Your task to perform on an android device: turn on the 24-hour format for clock Image 0: 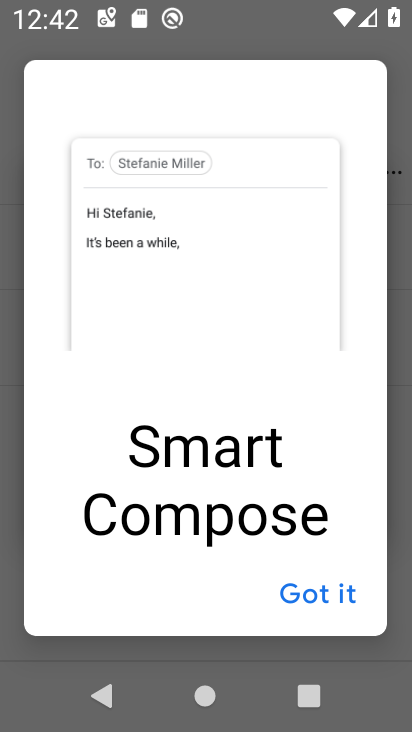
Step 0: press home button
Your task to perform on an android device: turn on the 24-hour format for clock Image 1: 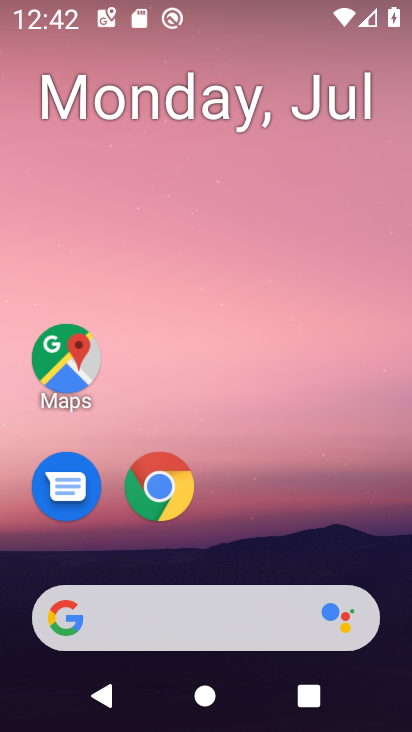
Step 1: drag from (384, 548) to (341, 76)
Your task to perform on an android device: turn on the 24-hour format for clock Image 2: 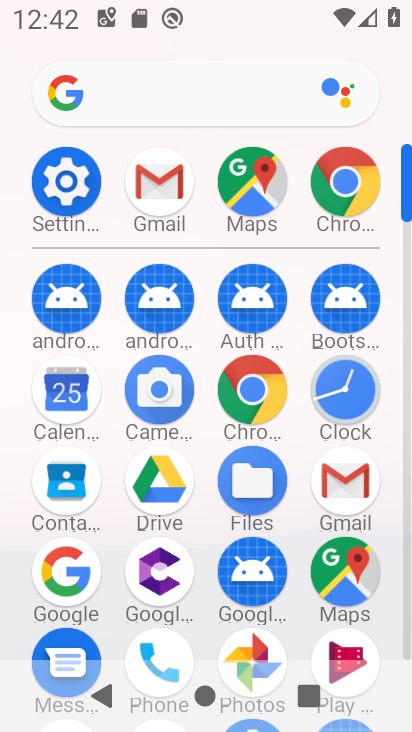
Step 2: click (338, 379)
Your task to perform on an android device: turn on the 24-hour format for clock Image 3: 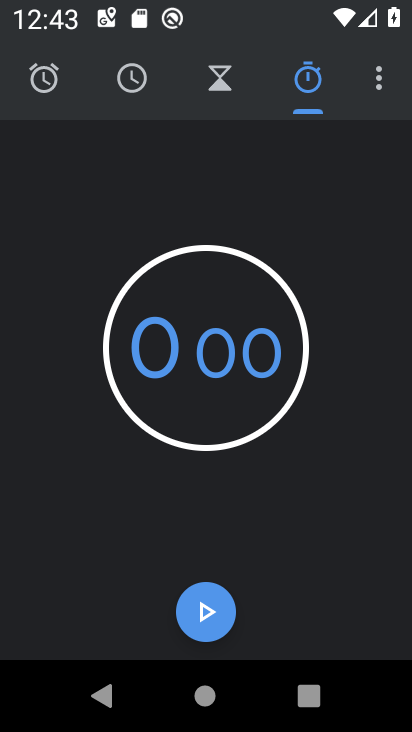
Step 3: click (379, 95)
Your task to perform on an android device: turn on the 24-hour format for clock Image 4: 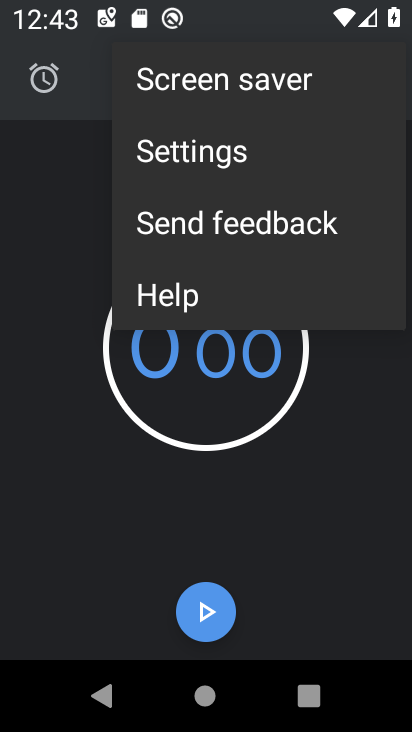
Step 4: click (314, 160)
Your task to perform on an android device: turn on the 24-hour format for clock Image 5: 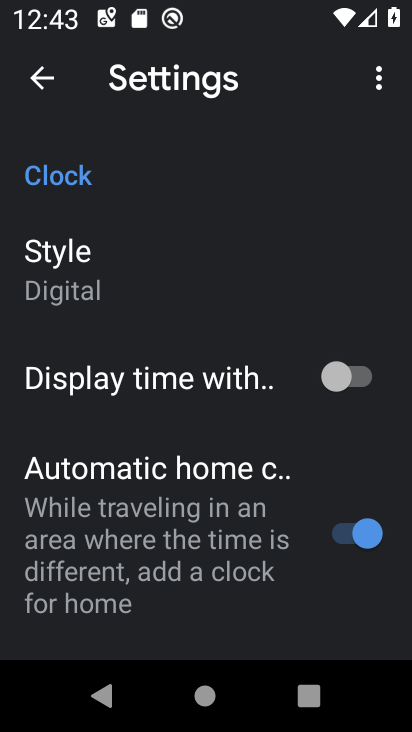
Step 5: drag from (303, 431) to (301, 366)
Your task to perform on an android device: turn on the 24-hour format for clock Image 6: 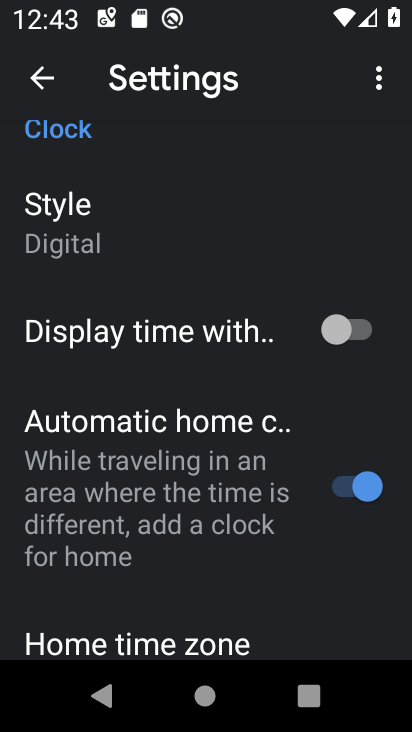
Step 6: drag from (293, 432) to (284, 321)
Your task to perform on an android device: turn on the 24-hour format for clock Image 7: 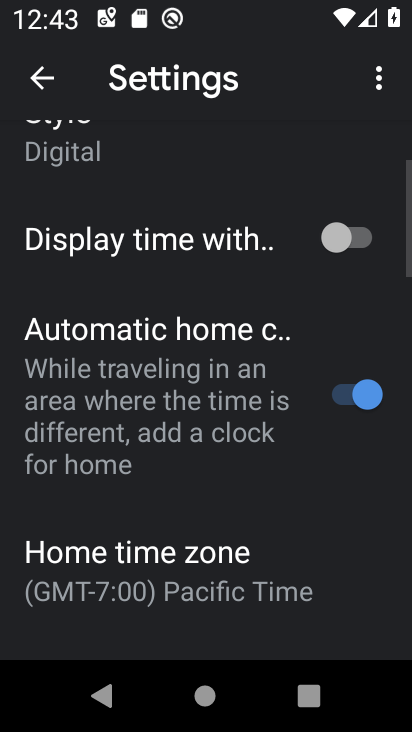
Step 7: drag from (282, 453) to (284, 361)
Your task to perform on an android device: turn on the 24-hour format for clock Image 8: 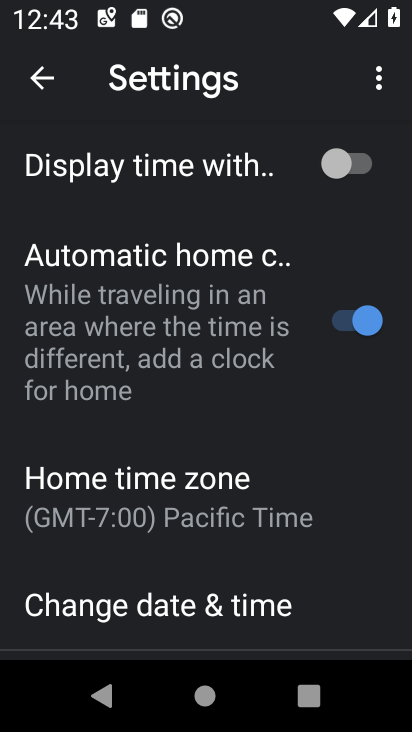
Step 8: drag from (281, 465) to (282, 369)
Your task to perform on an android device: turn on the 24-hour format for clock Image 9: 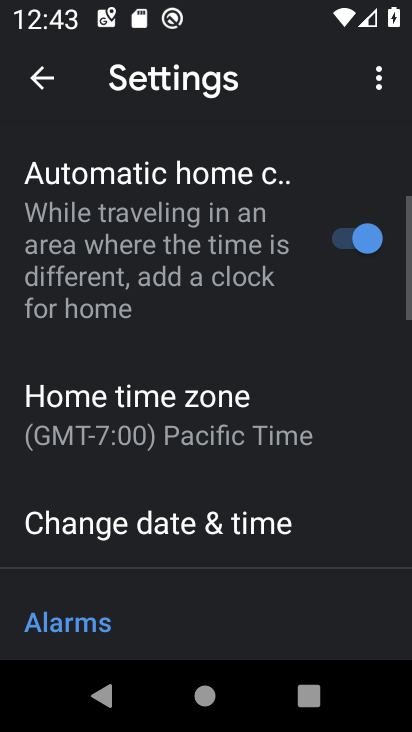
Step 9: drag from (279, 465) to (281, 345)
Your task to perform on an android device: turn on the 24-hour format for clock Image 10: 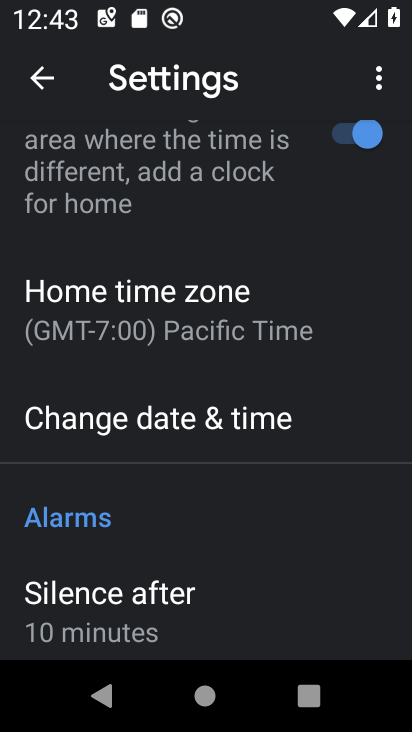
Step 10: drag from (280, 479) to (281, 380)
Your task to perform on an android device: turn on the 24-hour format for clock Image 11: 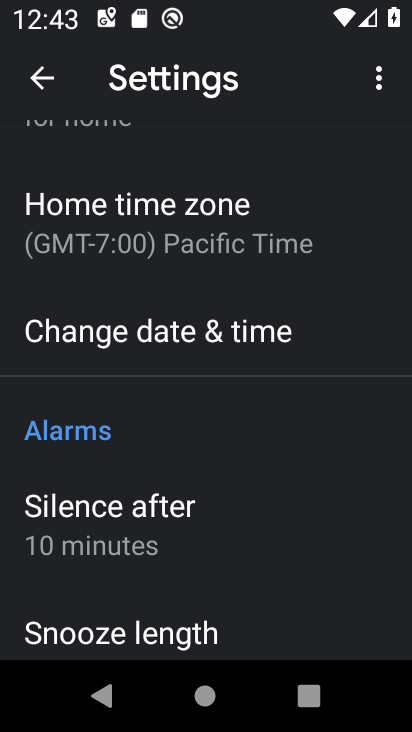
Step 11: drag from (285, 502) to (285, 403)
Your task to perform on an android device: turn on the 24-hour format for clock Image 12: 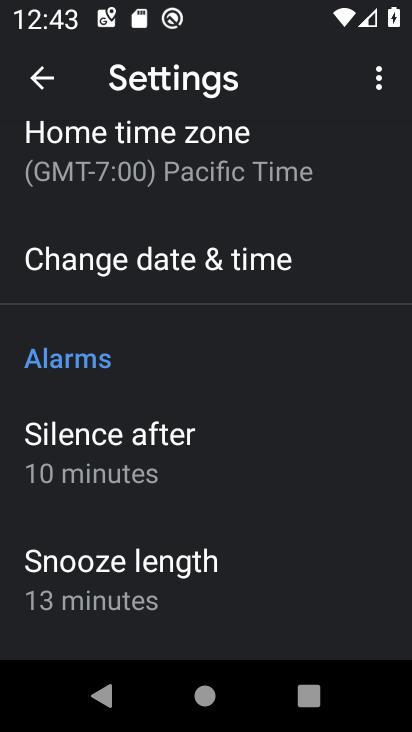
Step 12: drag from (287, 492) to (287, 391)
Your task to perform on an android device: turn on the 24-hour format for clock Image 13: 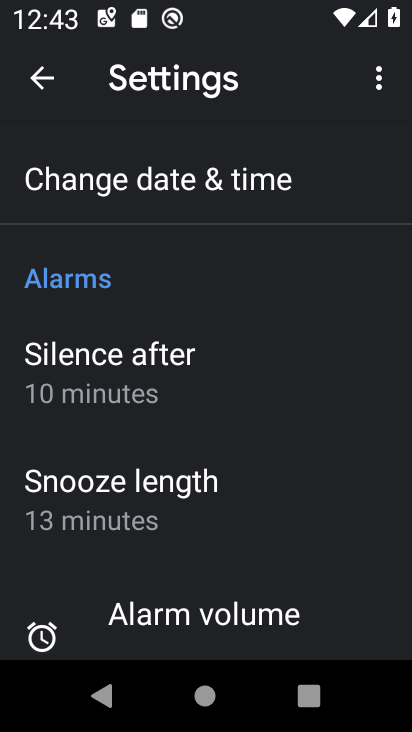
Step 13: click (272, 186)
Your task to perform on an android device: turn on the 24-hour format for clock Image 14: 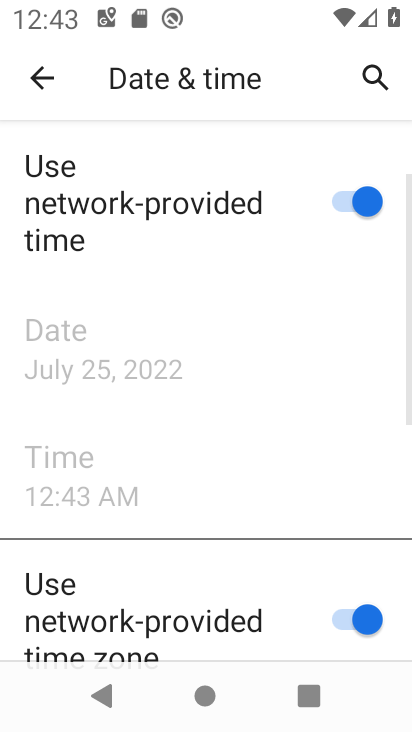
Step 14: drag from (250, 459) to (253, 369)
Your task to perform on an android device: turn on the 24-hour format for clock Image 15: 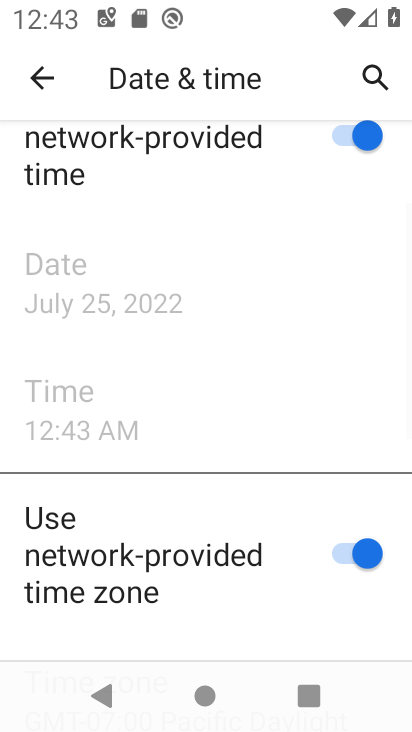
Step 15: drag from (261, 540) to (258, 424)
Your task to perform on an android device: turn on the 24-hour format for clock Image 16: 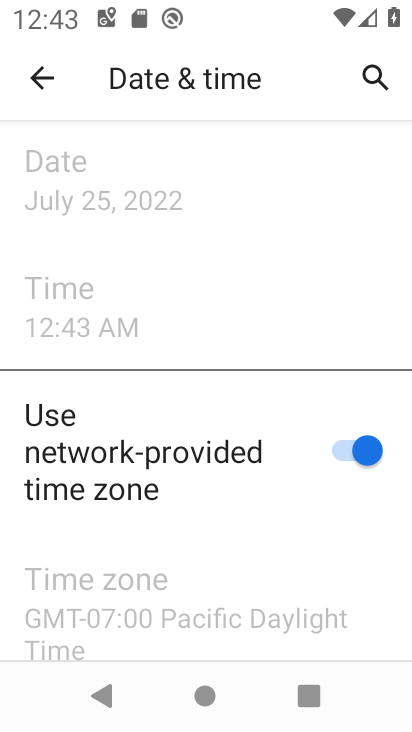
Step 16: drag from (255, 551) to (257, 425)
Your task to perform on an android device: turn on the 24-hour format for clock Image 17: 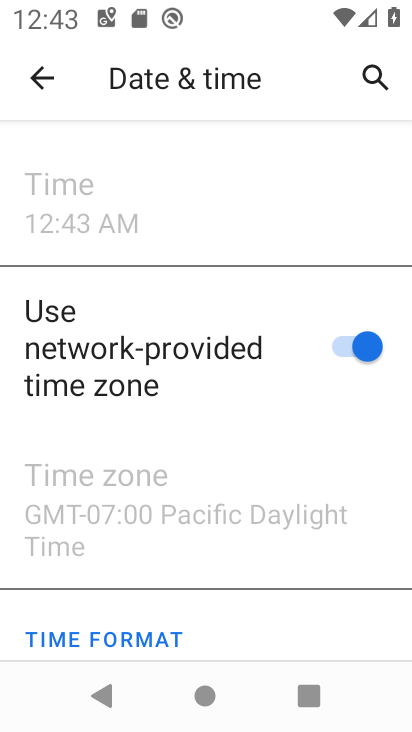
Step 17: drag from (247, 563) to (245, 418)
Your task to perform on an android device: turn on the 24-hour format for clock Image 18: 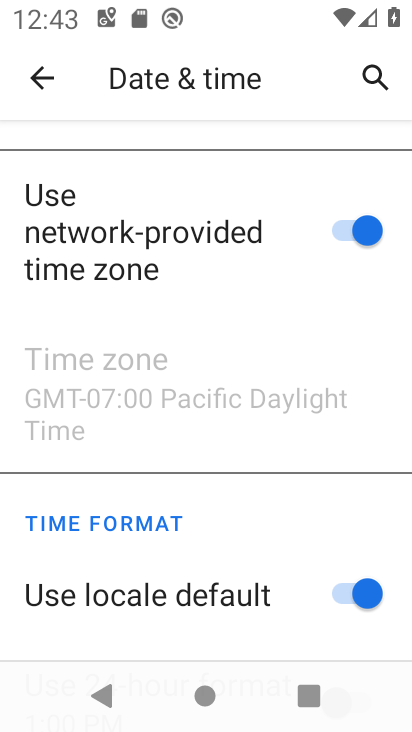
Step 18: drag from (246, 590) to (244, 403)
Your task to perform on an android device: turn on the 24-hour format for clock Image 19: 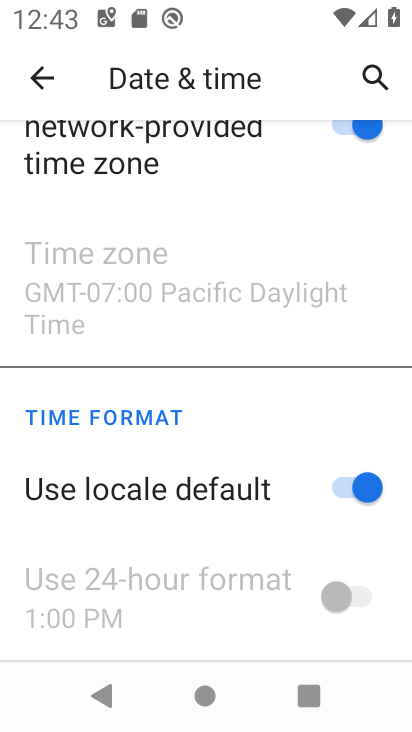
Step 19: click (372, 482)
Your task to perform on an android device: turn on the 24-hour format for clock Image 20: 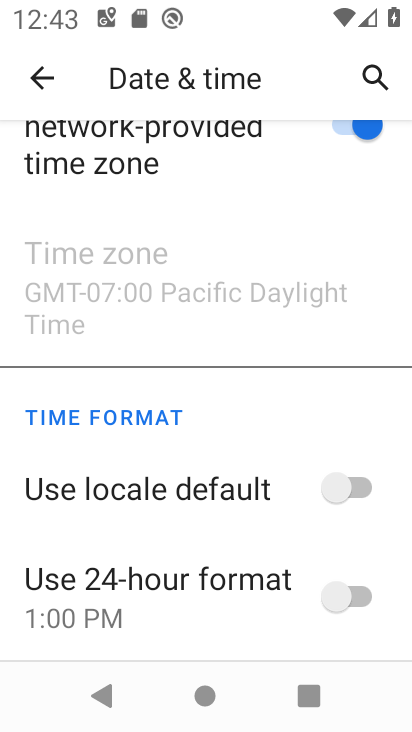
Step 20: click (353, 597)
Your task to perform on an android device: turn on the 24-hour format for clock Image 21: 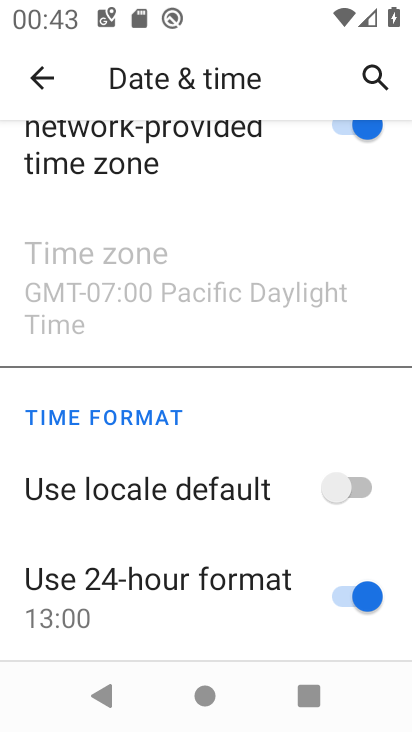
Step 21: task complete